Your task to perform on an android device: Go to network settings Image 0: 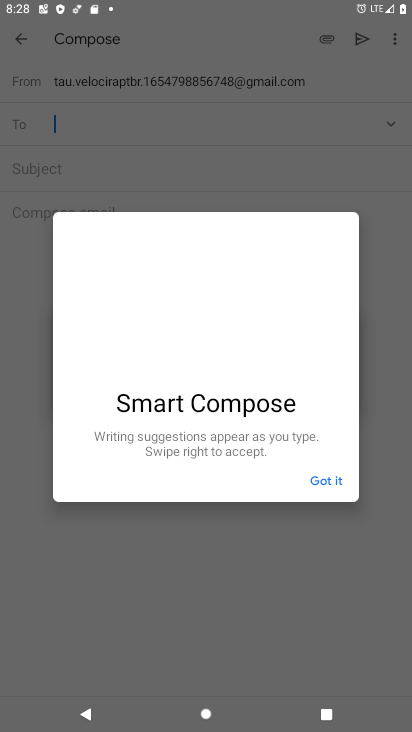
Step 0: drag from (361, 629) to (318, 221)
Your task to perform on an android device: Go to network settings Image 1: 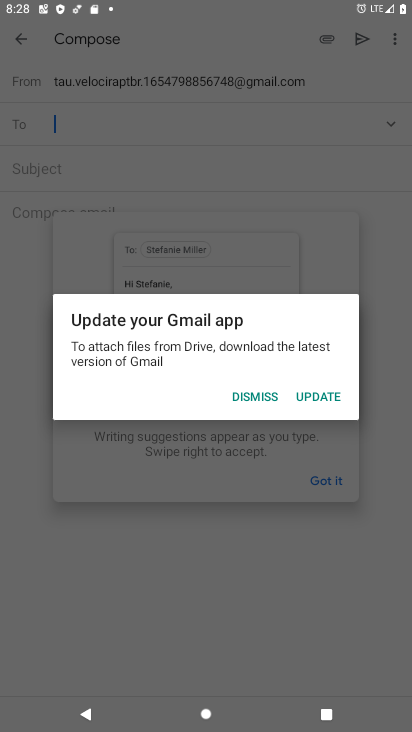
Step 1: click (317, 485)
Your task to perform on an android device: Go to network settings Image 2: 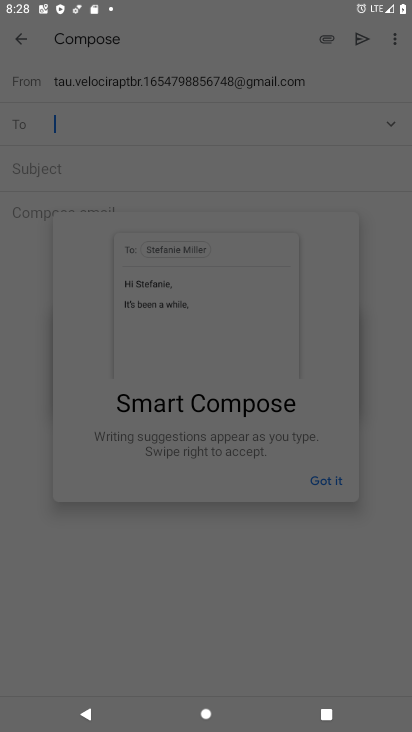
Step 2: press home button
Your task to perform on an android device: Go to network settings Image 3: 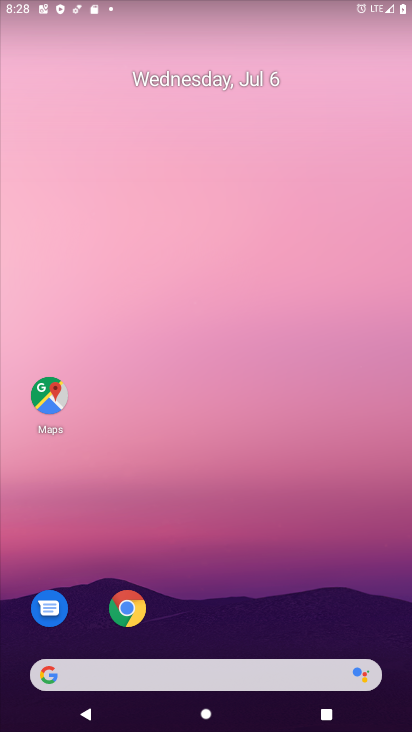
Step 3: drag from (387, 586) to (266, 21)
Your task to perform on an android device: Go to network settings Image 4: 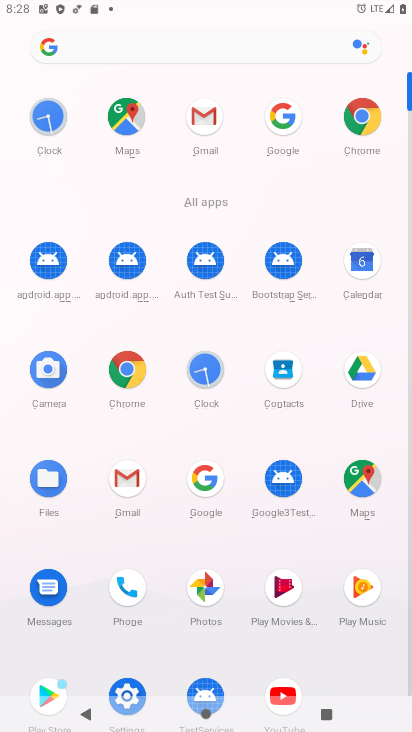
Step 4: drag from (146, 520) to (175, 176)
Your task to perform on an android device: Go to network settings Image 5: 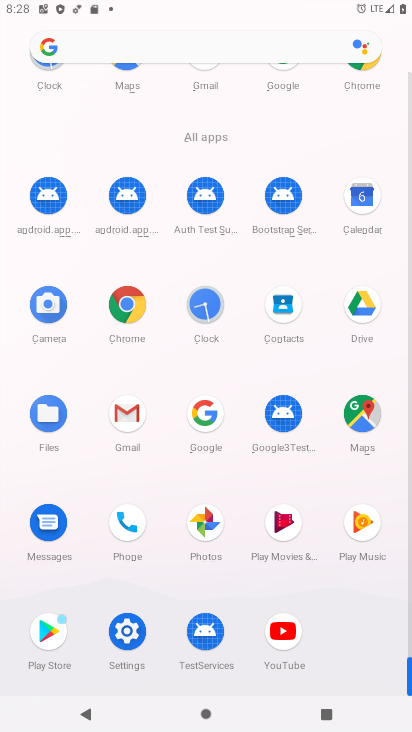
Step 5: click (146, 627)
Your task to perform on an android device: Go to network settings Image 6: 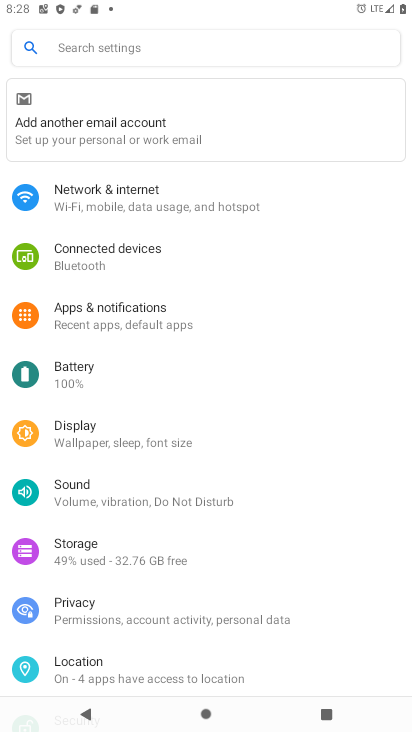
Step 6: click (134, 198)
Your task to perform on an android device: Go to network settings Image 7: 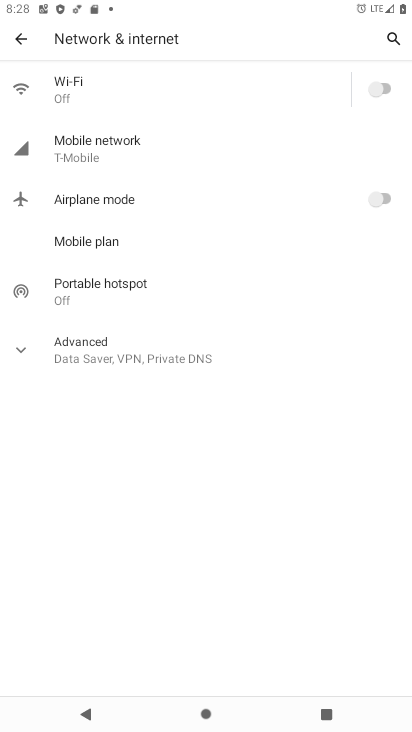
Step 7: task complete